Your task to perform on an android device: Show me popular games on the Play Store Image 0: 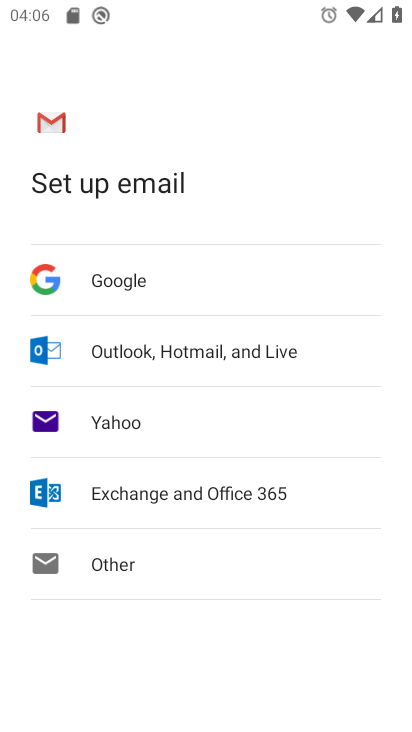
Step 0: press home button
Your task to perform on an android device: Show me popular games on the Play Store Image 1: 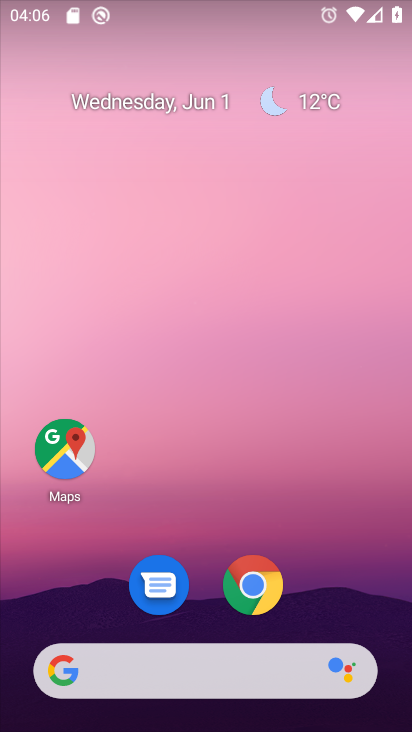
Step 1: drag from (294, 529) to (231, 32)
Your task to perform on an android device: Show me popular games on the Play Store Image 2: 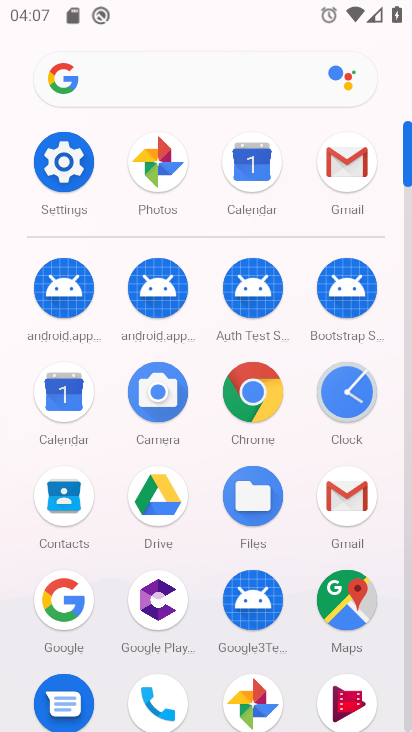
Step 2: drag from (122, 463) to (145, 99)
Your task to perform on an android device: Show me popular games on the Play Store Image 3: 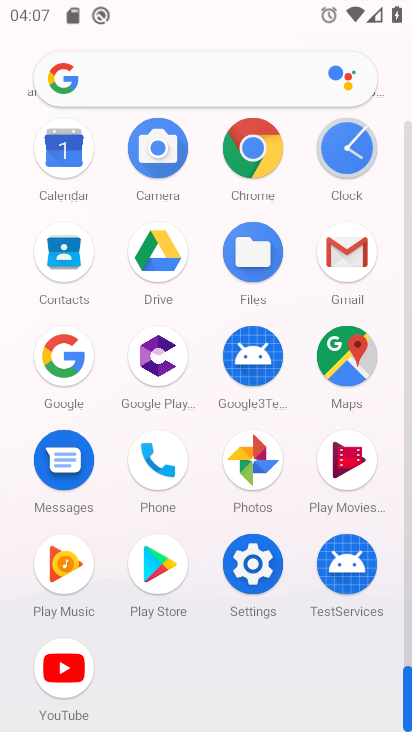
Step 3: click (146, 545)
Your task to perform on an android device: Show me popular games on the Play Store Image 4: 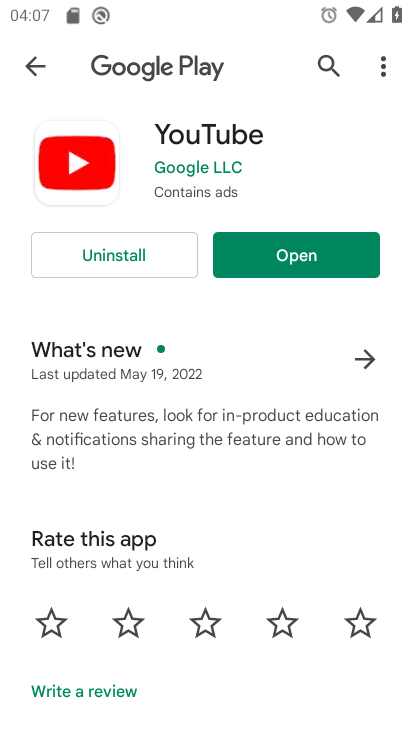
Step 4: click (40, 61)
Your task to perform on an android device: Show me popular games on the Play Store Image 5: 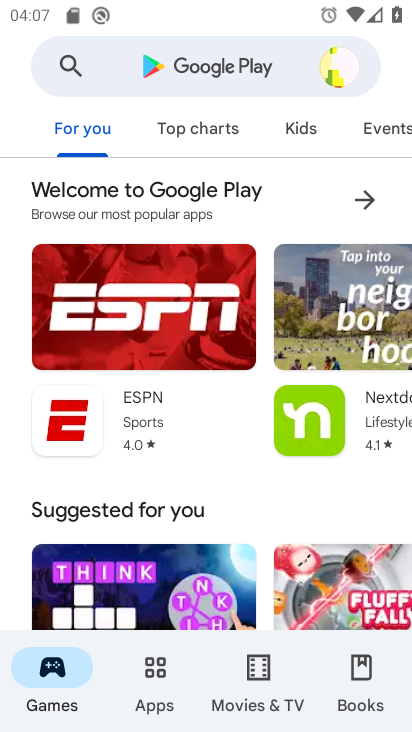
Step 5: click (65, 671)
Your task to perform on an android device: Show me popular games on the Play Store Image 6: 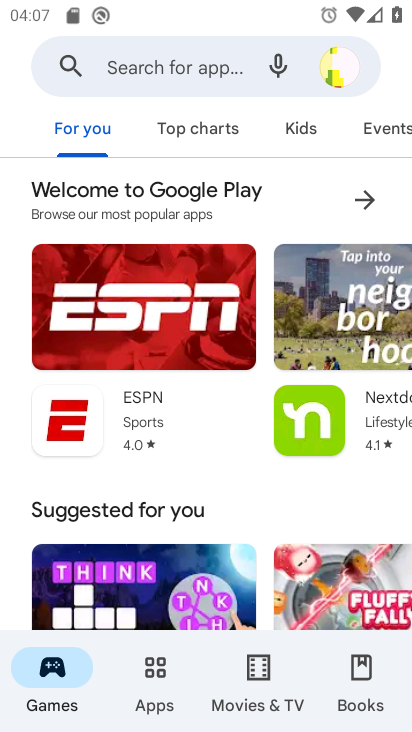
Step 6: drag from (207, 515) to (236, 10)
Your task to perform on an android device: Show me popular games on the Play Store Image 7: 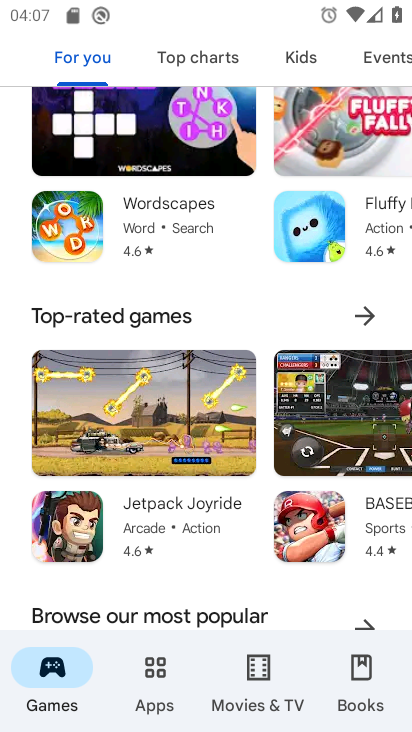
Step 7: drag from (214, 461) to (223, 196)
Your task to perform on an android device: Show me popular games on the Play Store Image 8: 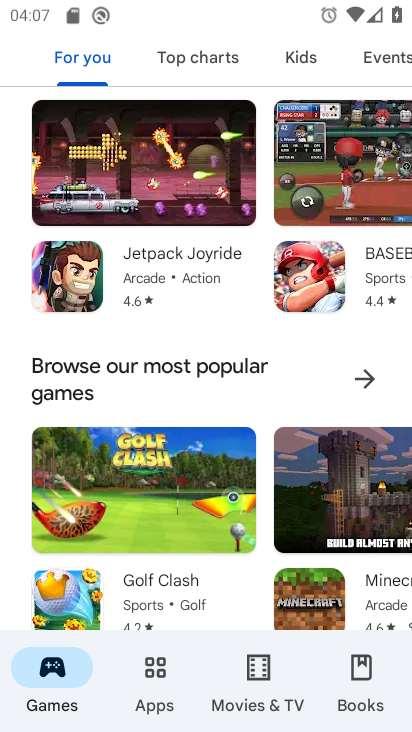
Step 8: click (360, 377)
Your task to perform on an android device: Show me popular games on the Play Store Image 9: 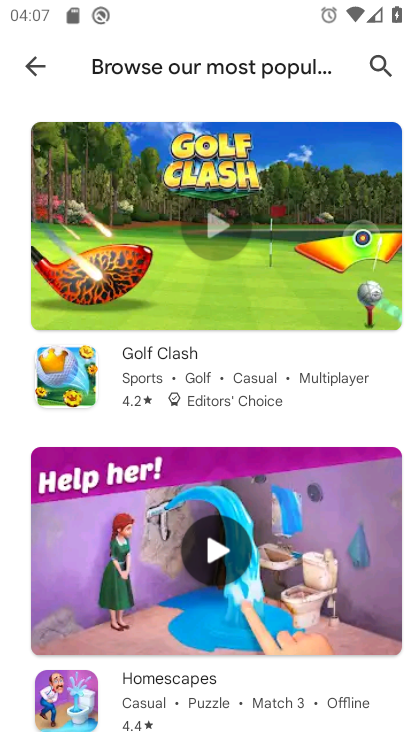
Step 9: task complete